Your task to perform on an android device: Open Google Maps Image 0: 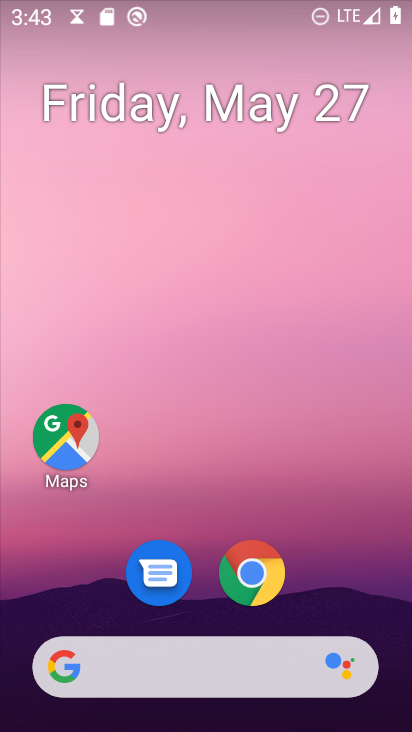
Step 0: drag from (321, 600) to (328, 126)
Your task to perform on an android device: Open Google Maps Image 1: 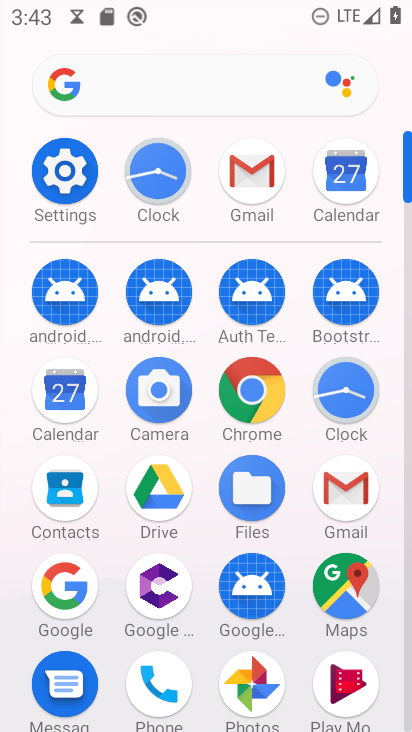
Step 1: click (323, 585)
Your task to perform on an android device: Open Google Maps Image 2: 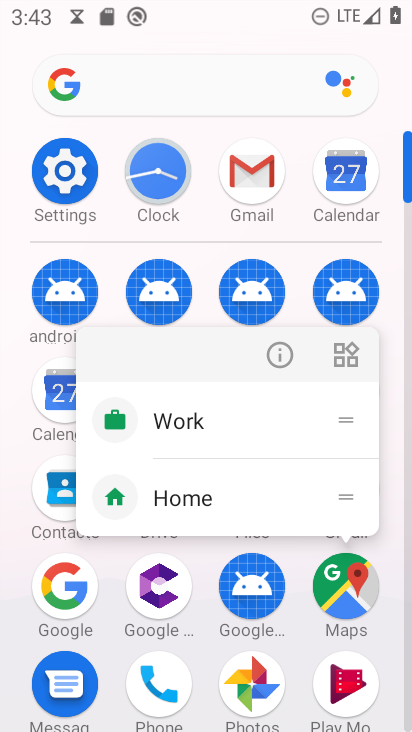
Step 2: click (335, 575)
Your task to perform on an android device: Open Google Maps Image 3: 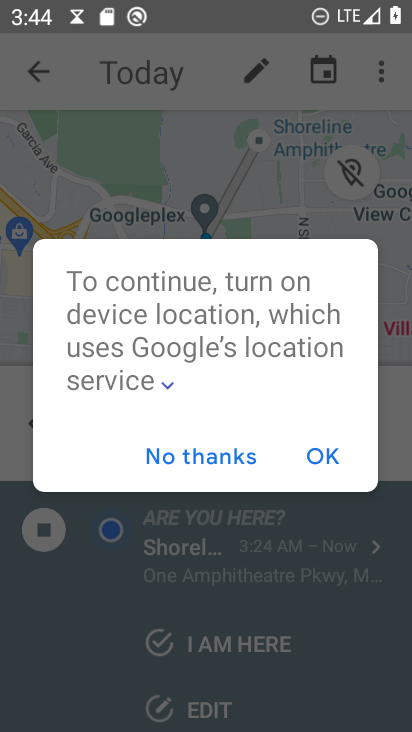
Step 3: click (315, 451)
Your task to perform on an android device: Open Google Maps Image 4: 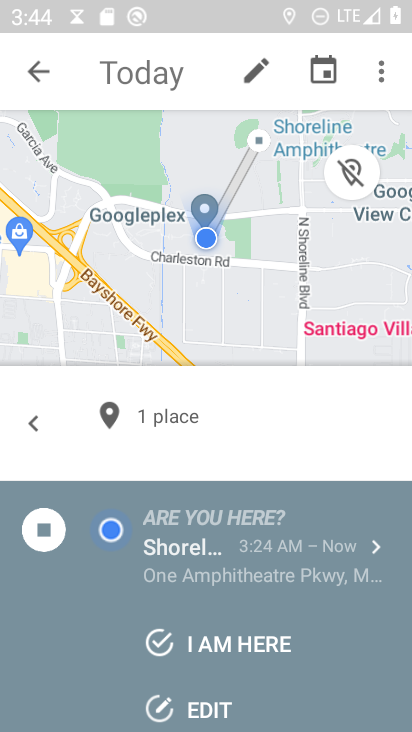
Step 4: click (32, 68)
Your task to perform on an android device: Open Google Maps Image 5: 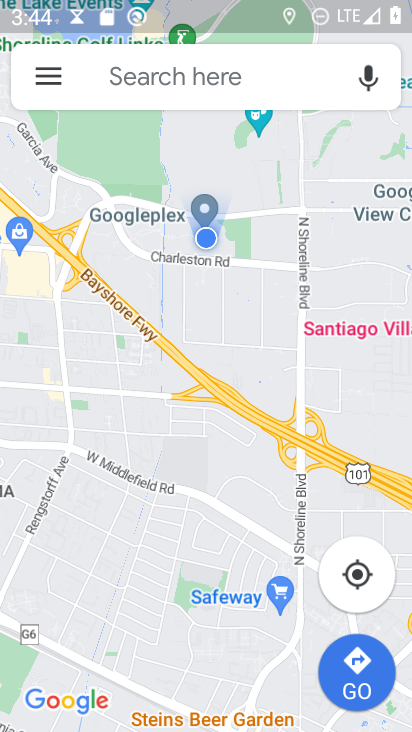
Step 5: task complete